Your task to perform on an android device: turn on the 12-hour format for clock Image 0: 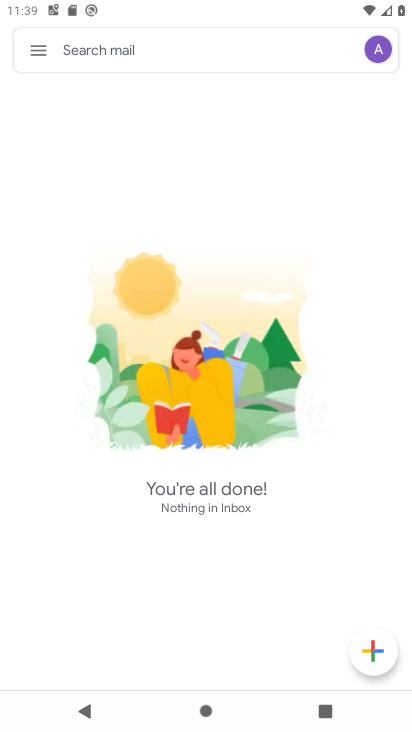
Step 0: press home button
Your task to perform on an android device: turn on the 12-hour format for clock Image 1: 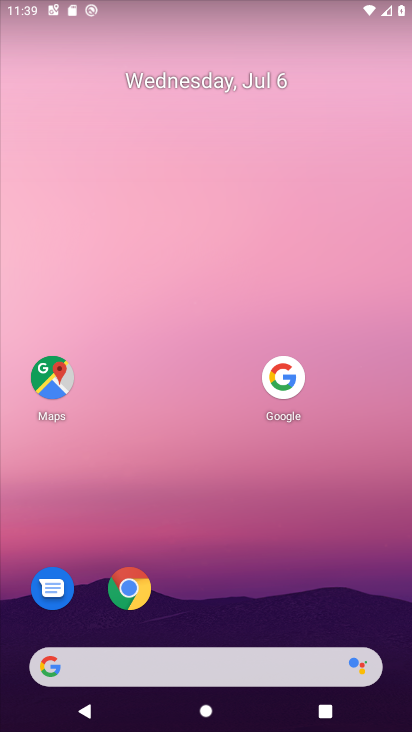
Step 1: drag from (212, 659) to (293, 109)
Your task to perform on an android device: turn on the 12-hour format for clock Image 2: 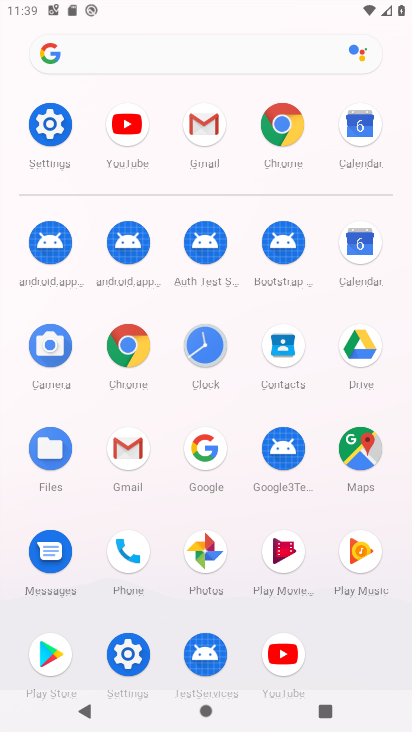
Step 2: click (198, 344)
Your task to perform on an android device: turn on the 12-hour format for clock Image 3: 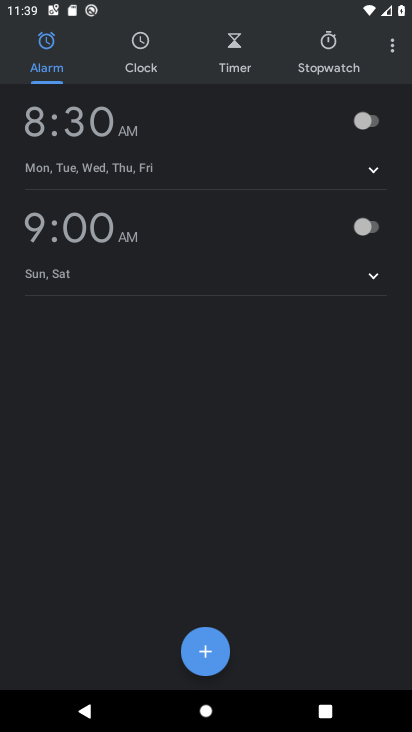
Step 3: click (390, 48)
Your task to perform on an android device: turn on the 12-hour format for clock Image 4: 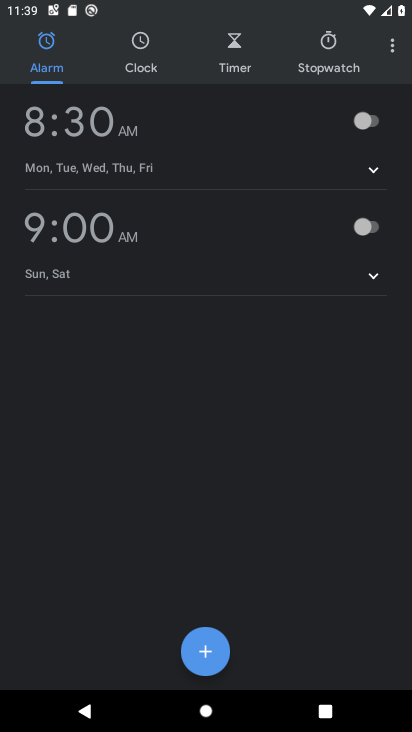
Step 4: click (391, 48)
Your task to perform on an android device: turn on the 12-hour format for clock Image 5: 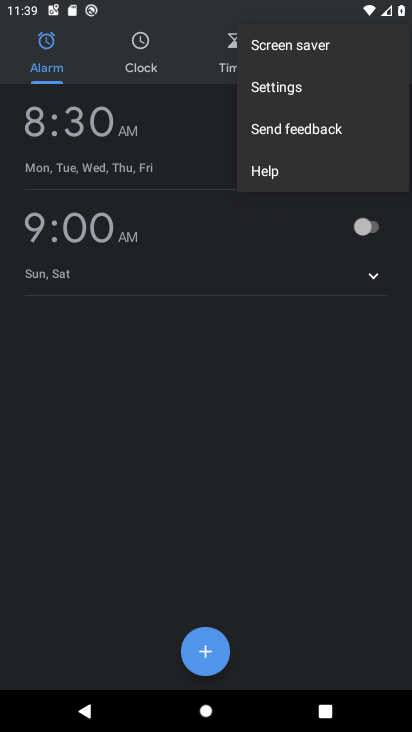
Step 5: click (276, 92)
Your task to perform on an android device: turn on the 12-hour format for clock Image 6: 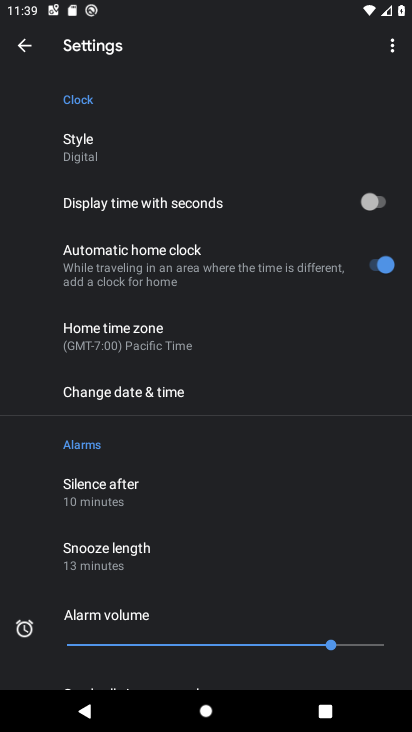
Step 6: click (152, 396)
Your task to perform on an android device: turn on the 12-hour format for clock Image 7: 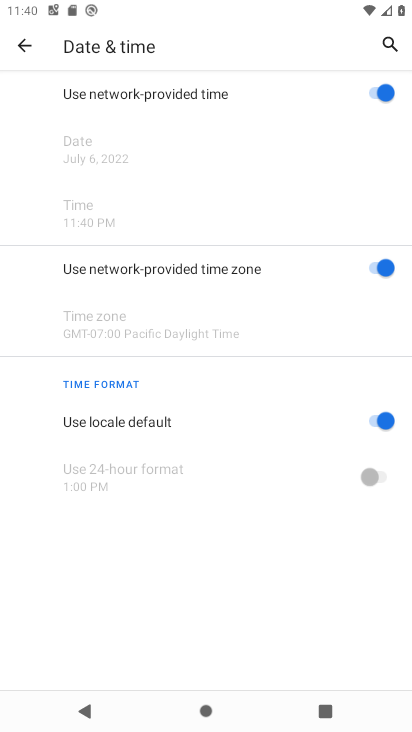
Step 7: task complete